Your task to perform on an android device: add a contact in the contacts app Image 0: 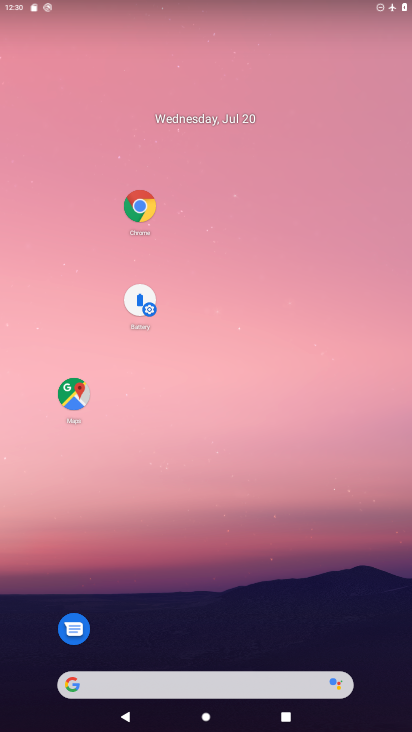
Step 0: drag from (174, 606) to (116, 14)
Your task to perform on an android device: add a contact in the contacts app Image 1: 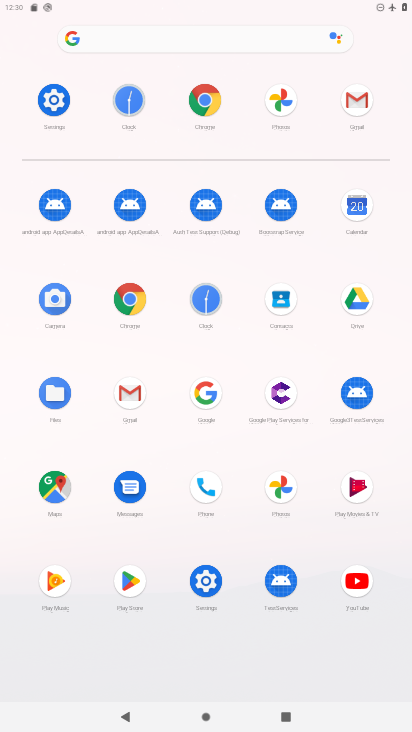
Step 1: click (275, 300)
Your task to perform on an android device: add a contact in the contacts app Image 2: 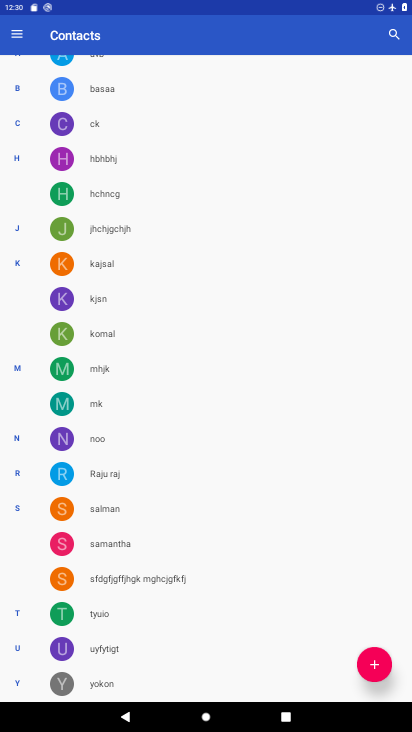
Step 2: drag from (244, 537) to (293, 305)
Your task to perform on an android device: add a contact in the contacts app Image 3: 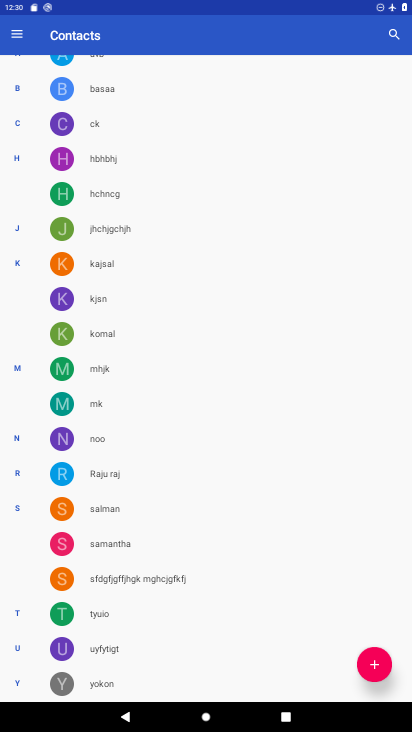
Step 3: click (366, 667)
Your task to perform on an android device: add a contact in the contacts app Image 4: 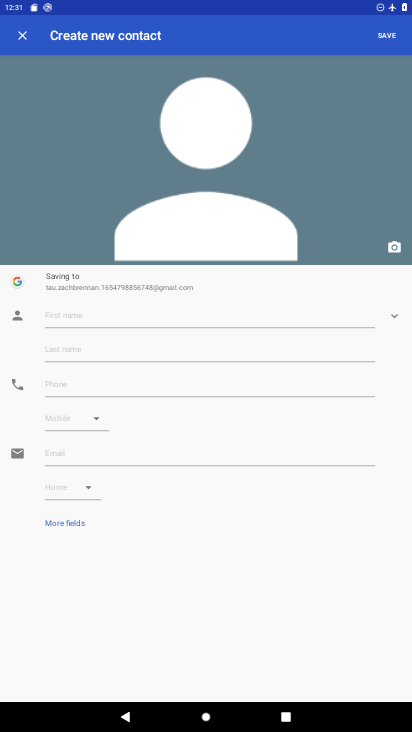
Step 4: click (57, 319)
Your task to perform on an android device: add a contact in the contacts app Image 5: 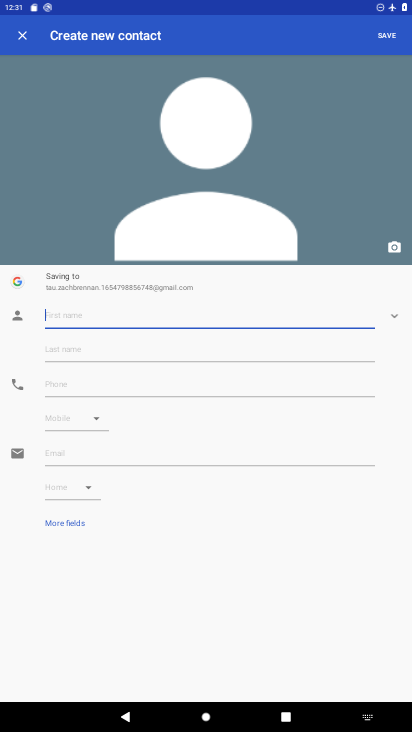
Step 5: type "mbvbm"
Your task to perform on an android device: add a contact in the contacts app Image 6: 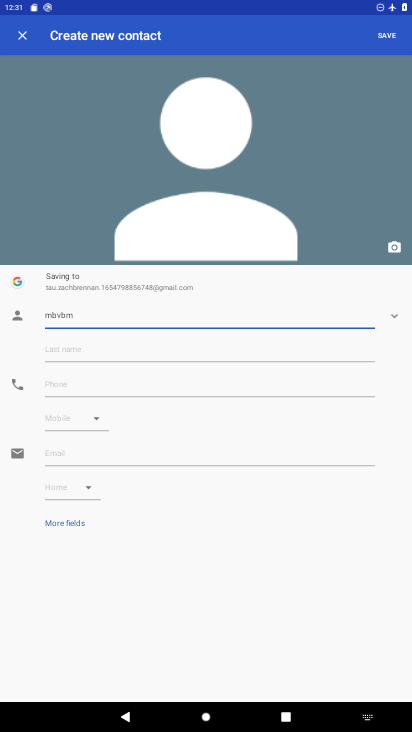
Step 6: click (101, 392)
Your task to perform on an android device: add a contact in the contacts app Image 7: 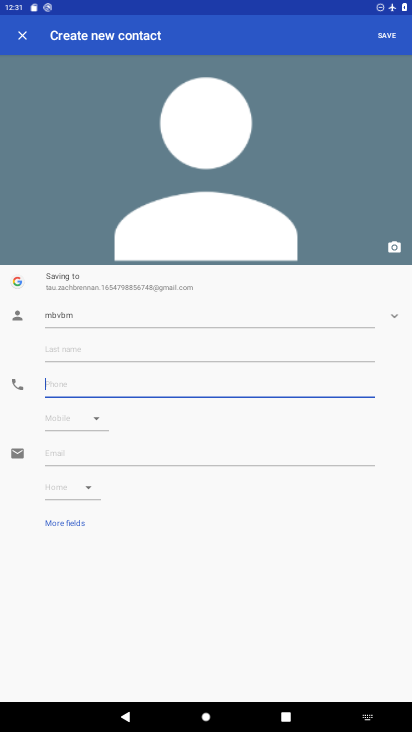
Step 7: type "8879089"
Your task to perform on an android device: add a contact in the contacts app Image 8: 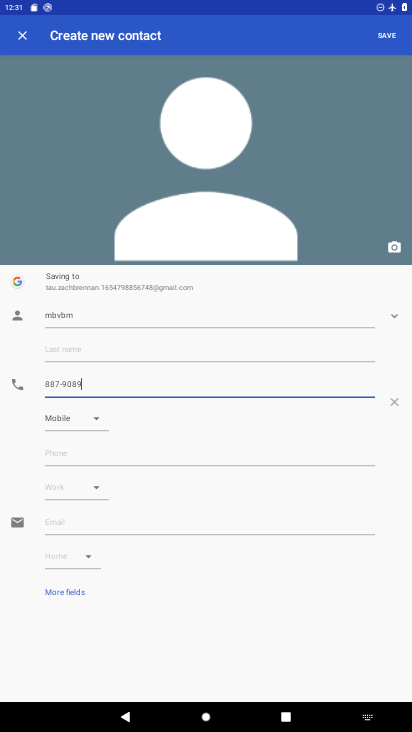
Step 8: click (379, 32)
Your task to perform on an android device: add a contact in the contacts app Image 9: 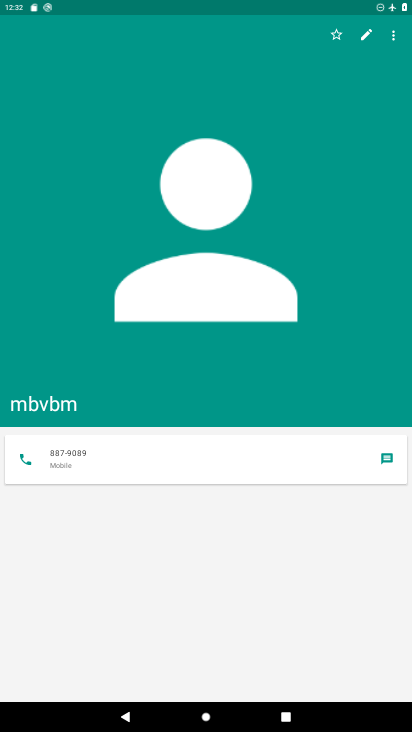
Step 9: task complete